Your task to perform on an android device: Open Wikipedia Image 0: 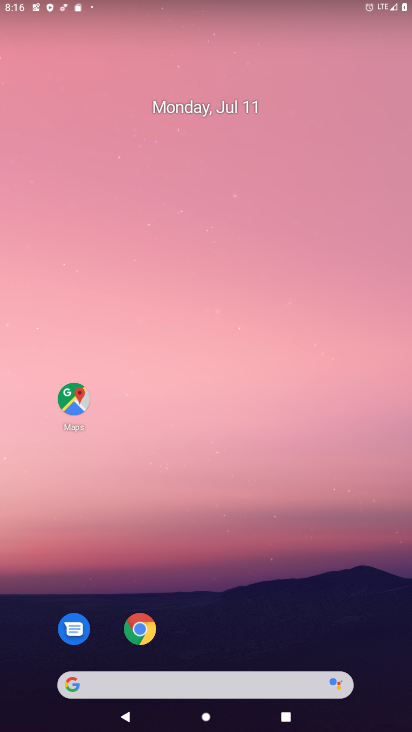
Step 0: drag from (184, 642) to (146, 127)
Your task to perform on an android device: Open Wikipedia Image 1: 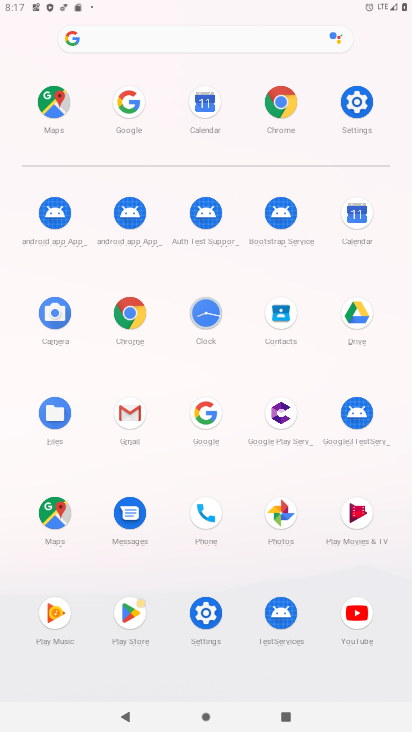
Step 1: click (282, 100)
Your task to perform on an android device: Open Wikipedia Image 2: 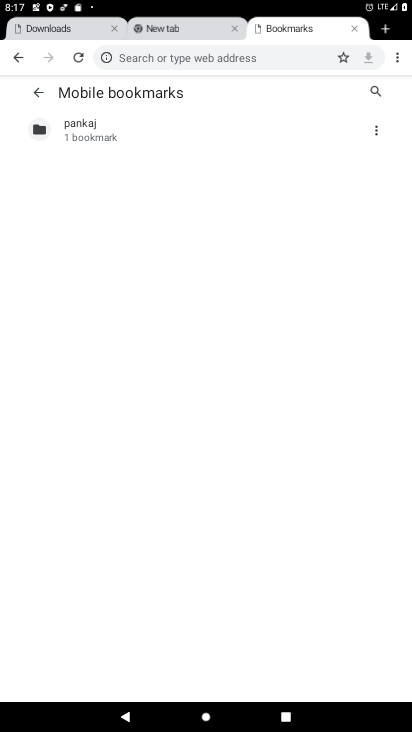
Step 2: press back button
Your task to perform on an android device: Open Wikipedia Image 3: 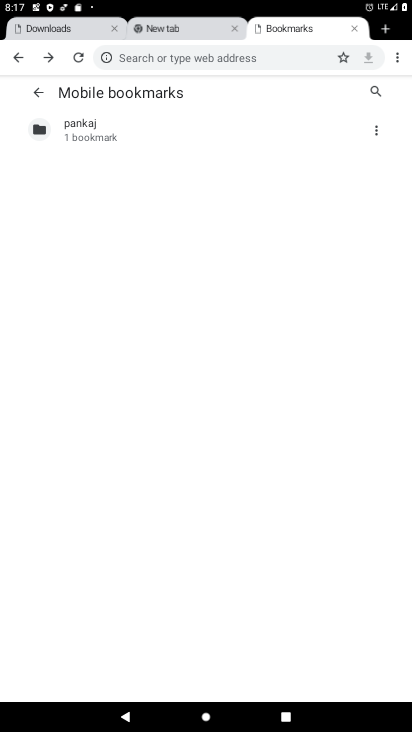
Step 3: press back button
Your task to perform on an android device: Open Wikipedia Image 4: 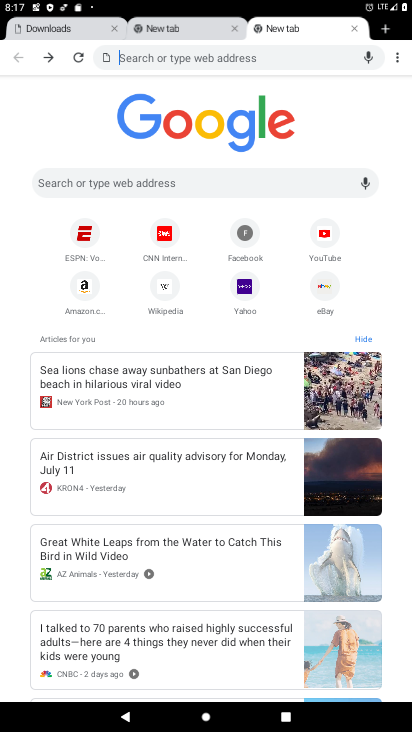
Step 4: press back button
Your task to perform on an android device: Open Wikipedia Image 5: 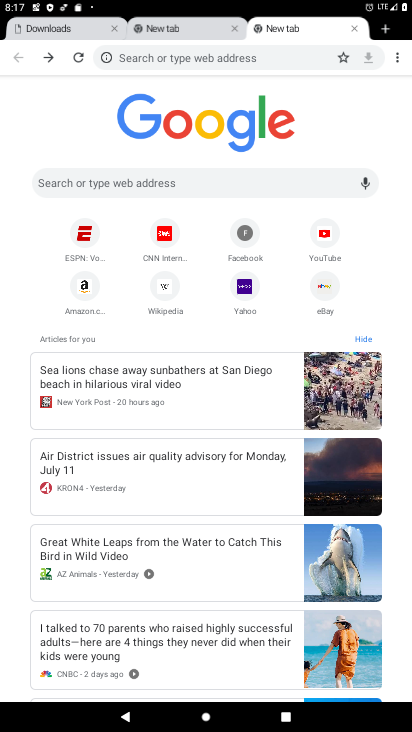
Step 5: click (162, 287)
Your task to perform on an android device: Open Wikipedia Image 6: 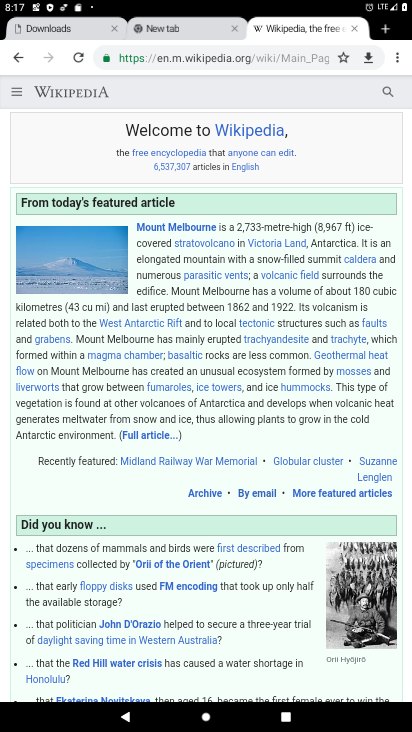
Step 6: task complete